Your task to perform on an android device: Go to settings Image 0: 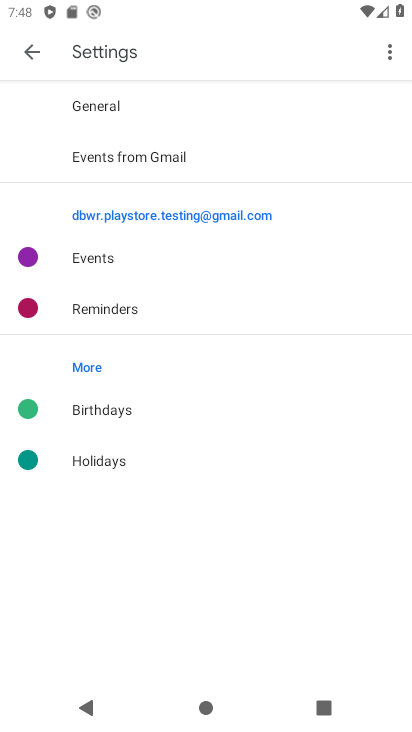
Step 0: press home button
Your task to perform on an android device: Go to settings Image 1: 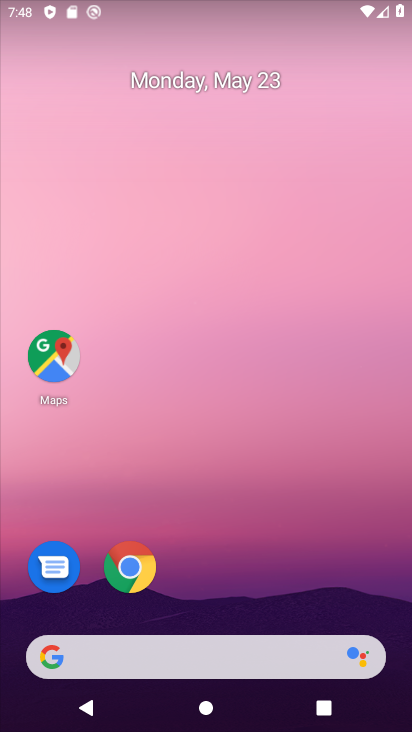
Step 1: drag from (215, 244) to (238, 97)
Your task to perform on an android device: Go to settings Image 2: 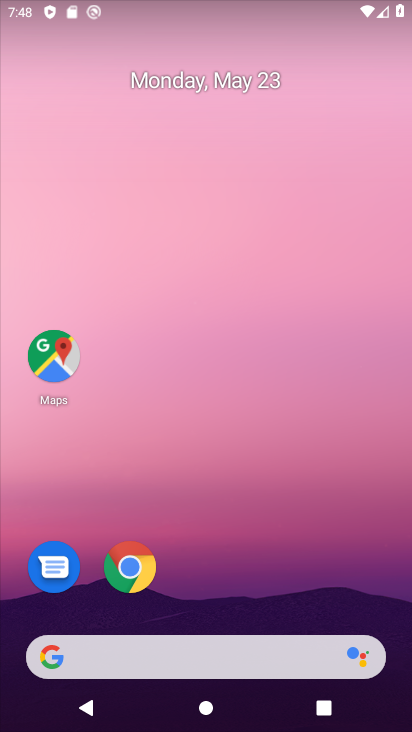
Step 2: drag from (221, 588) to (220, 2)
Your task to perform on an android device: Go to settings Image 3: 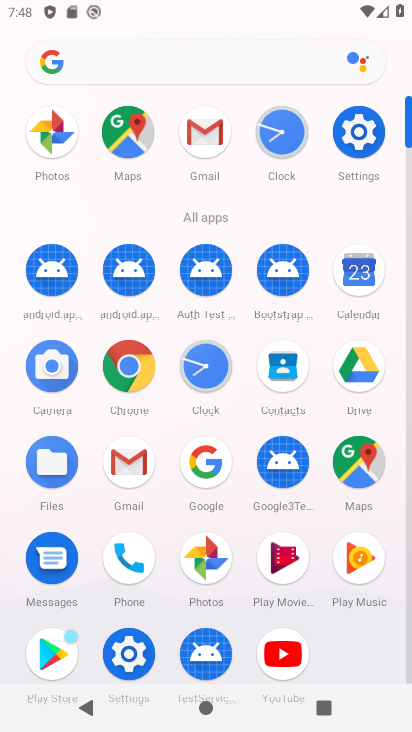
Step 3: click (367, 141)
Your task to perform on an android device: Go to settings Image 4: 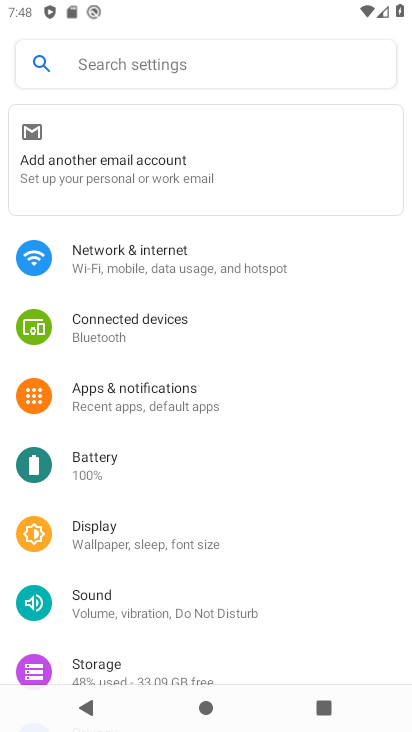
Step 4: task complete